Your task to perform on an android device: turn off notifications in google photos Image 0: 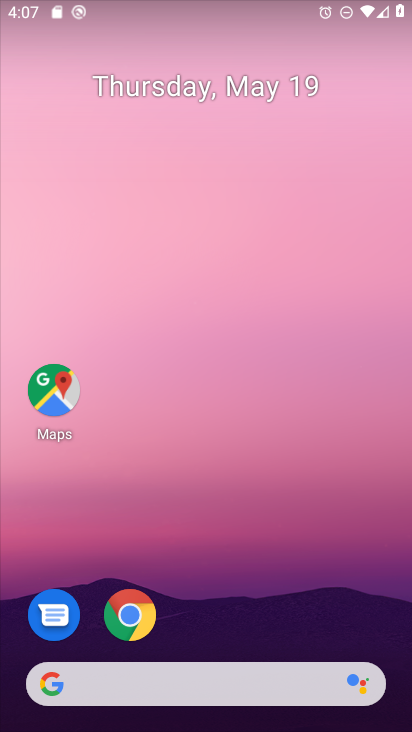
Step 0: drag from (250, 561) to (164, 187)
Your task to perform on an android device: turn off notifications in google photos Image 1: 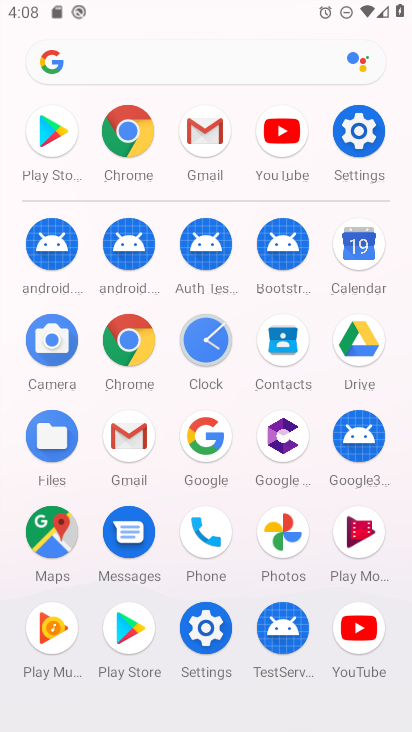
Step 1: click (297, 521)
Your task to perform on an android device: turn off notifications in google photos Image 2: 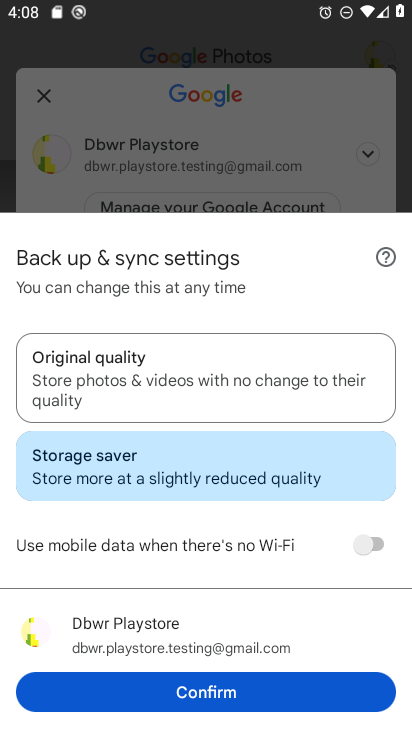
Step 2: click (294, 692)
Your task to perform on an android device: turn off notifications in google photos Image 3: 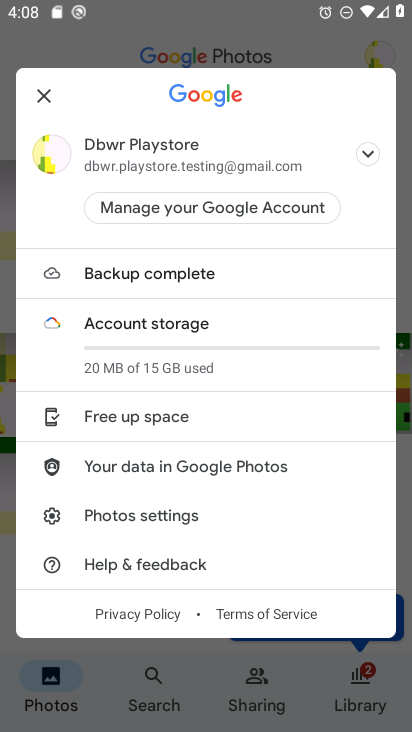
Step 3: click (238, 533)
Your task to perform on an android device: turn off notifications in google photos Image 4: 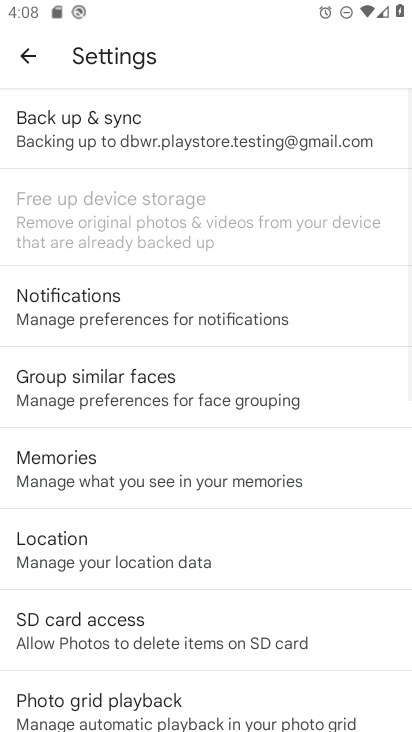
Step 4: click (178, 317)
Your task to perform on an android device: turn off notifications in google photos Image 5: 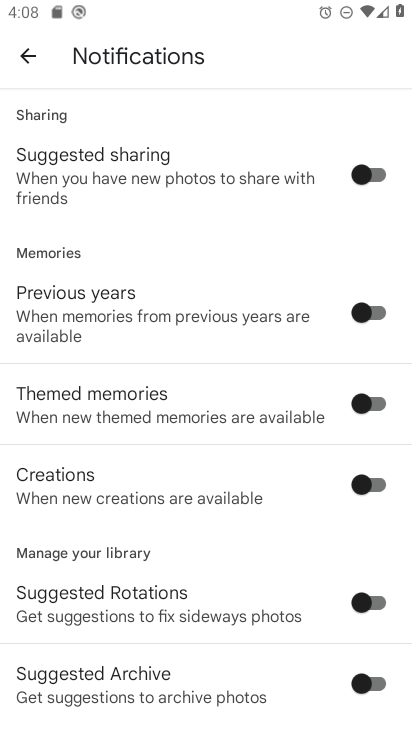
Step 5: drag from (248, 665) to (184, 20)
Your task to perform on an android device: turn off notifications in google photos Image 6: 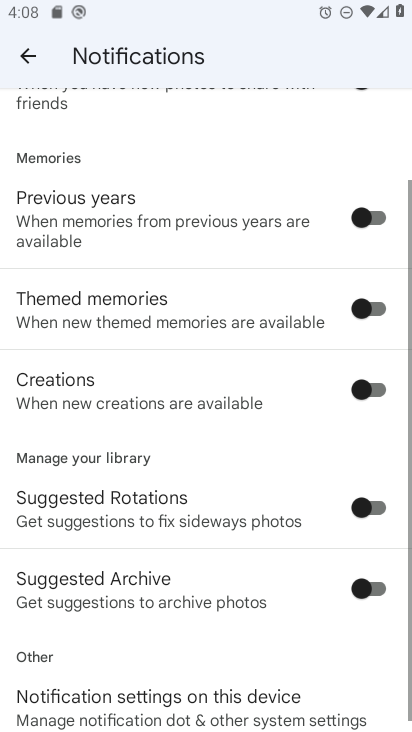
Step 6: click (276, 687)
Your task to perform on an android device: turn off notifications in google photos Image 7: 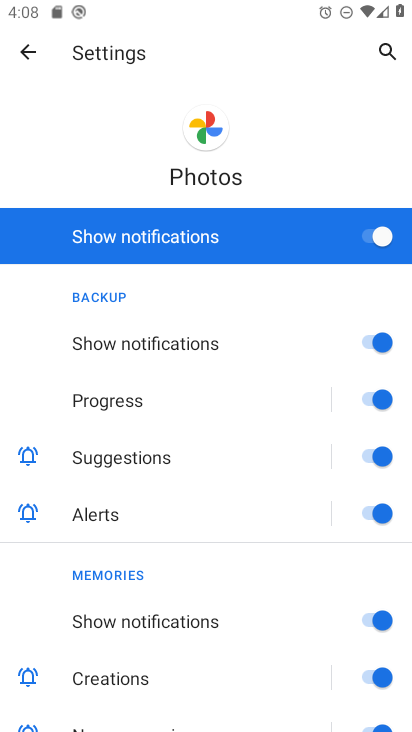
Step 7: click (381, 230)
Your task to perform on an android device: turn off notifications in google photos Image 8: 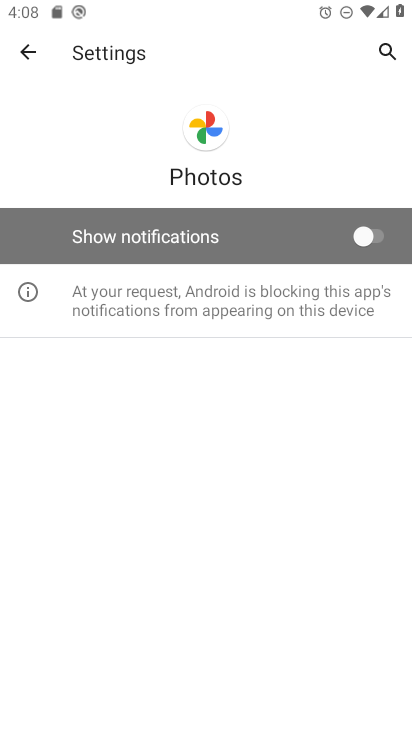
Step 8: task complete